Your task to perform on an android device: Go to Amazon Image 0: 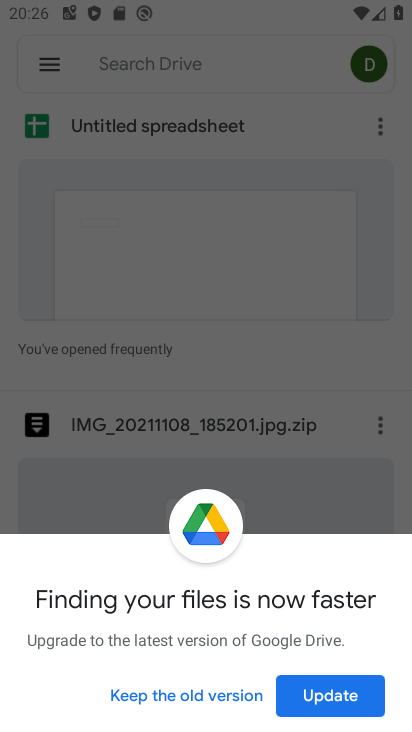
Step 0: press home button
Your task to perform on an android device: Go to Amazon Image 1: 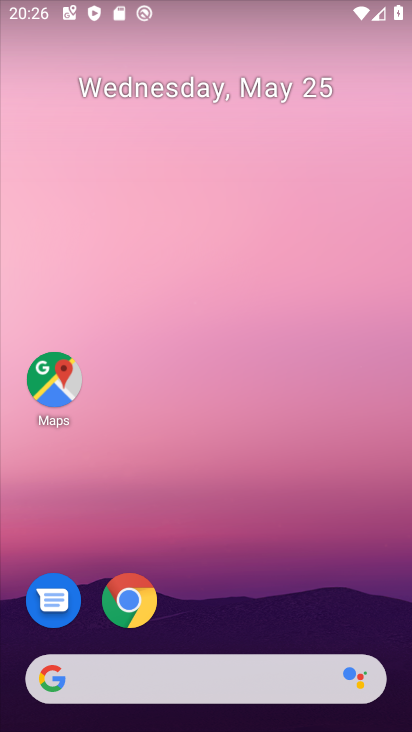
Step 1: drag from (344, 560) to (306, 119)
Your task to perform on an android device: Go to Amazon Image 2: 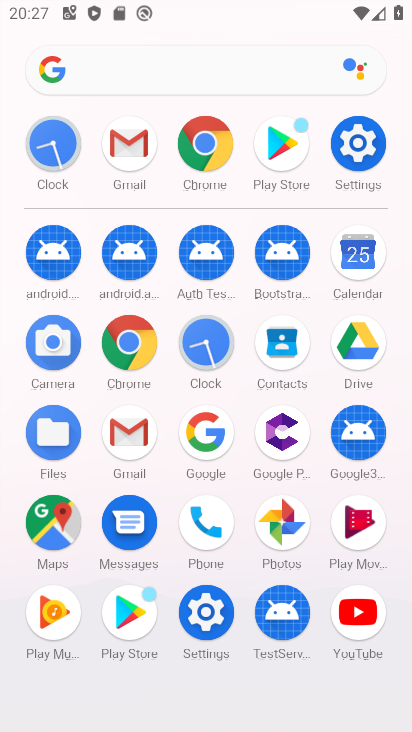
Step 2: click (129, 354)
Your task to perform on an android device: Go to Amazon Image 3: 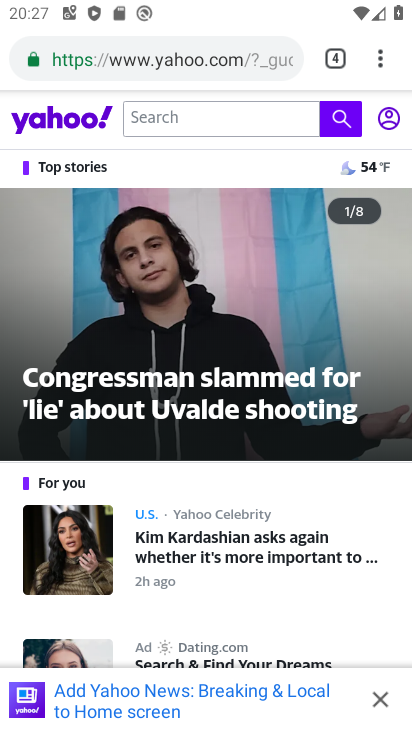
Step 3: click (233, 56)
Your task to perform on an android device: Go to Amazon Image 4: 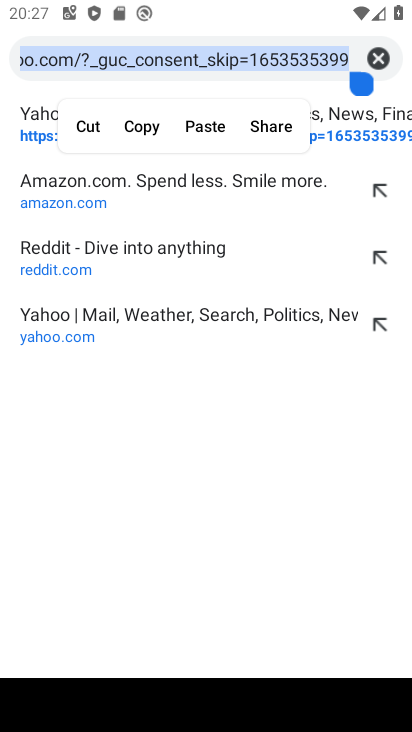
Step 4: click (382, 54)
Your task to perform on an android device: Go to Amazon Image 5: 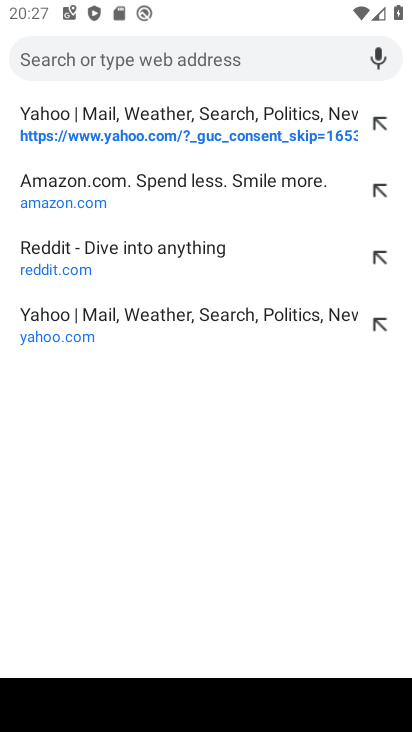
Step 5: type "amazon.com"
Your task to perform on an android device: Go to Amazon Image 6: 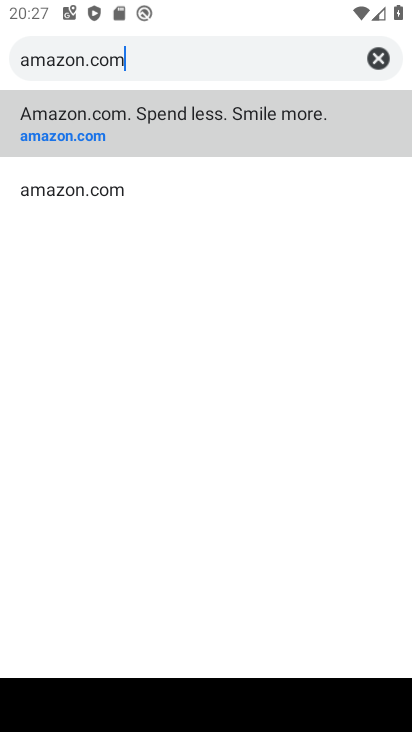
Step 6: click (167, 132)
Your task to perform on an android device: Go to Amazon Image 7: 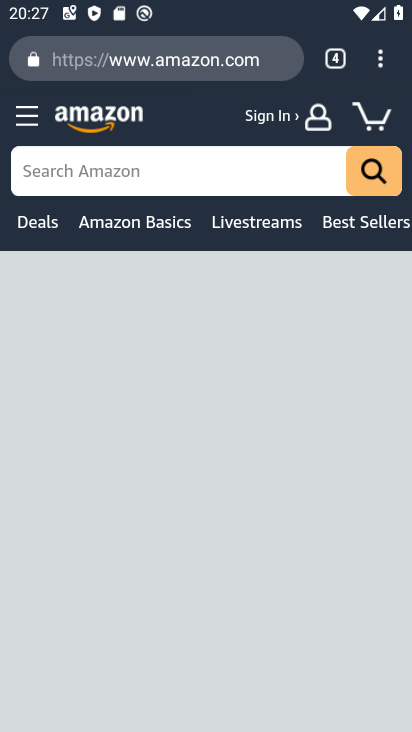
Step 7: task complete